Your task to perform on an android device: Go to Google Image 0: 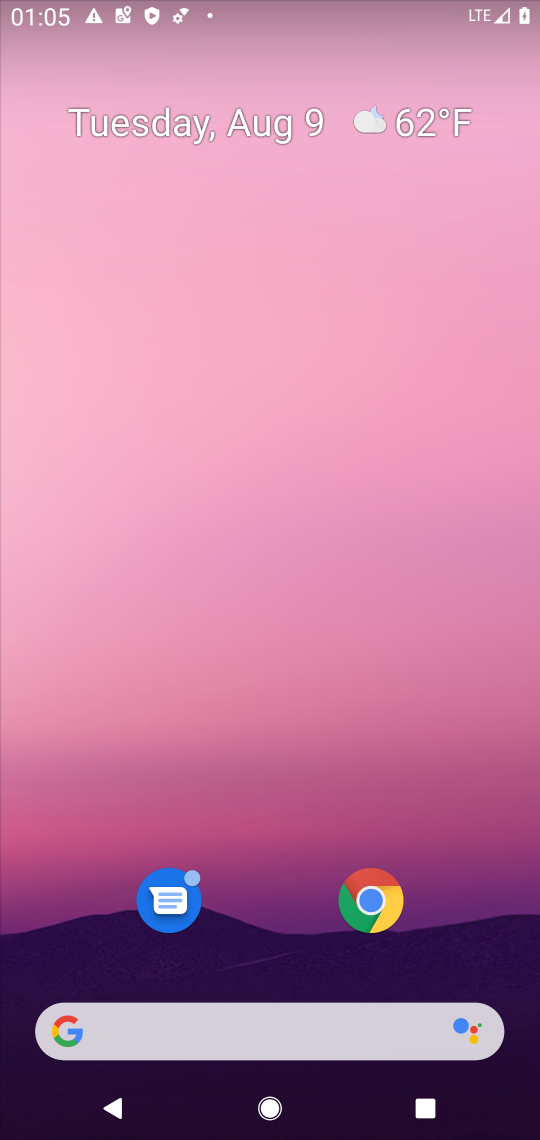
Step 0: press home button
Your task to perform on an android device: Go to Google Image 1: 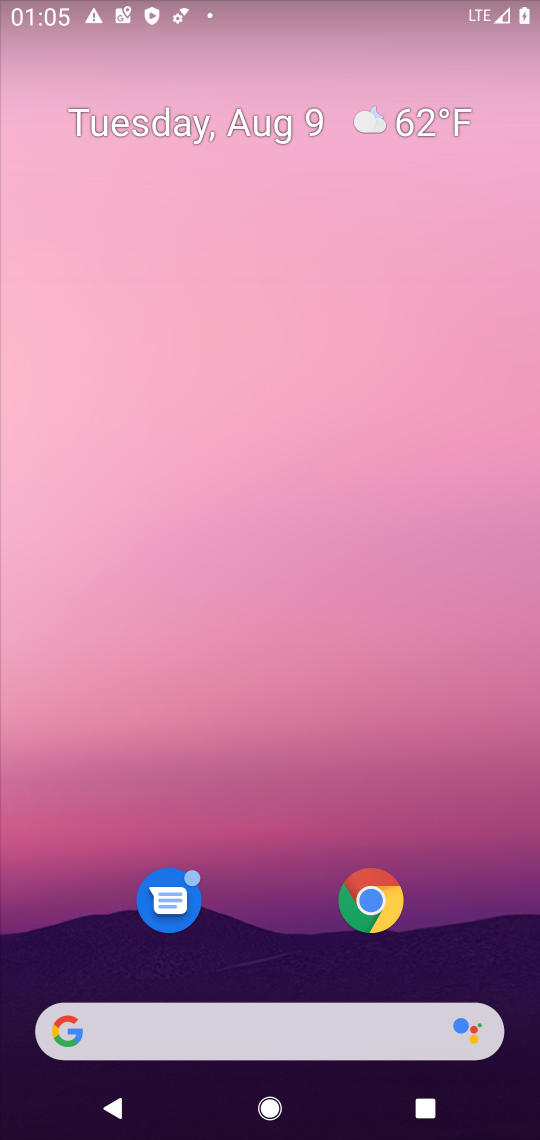
Step 1: drag from (233, 929) to (268, 292)
Your task to perform on an android device: Go to Google Image 2: 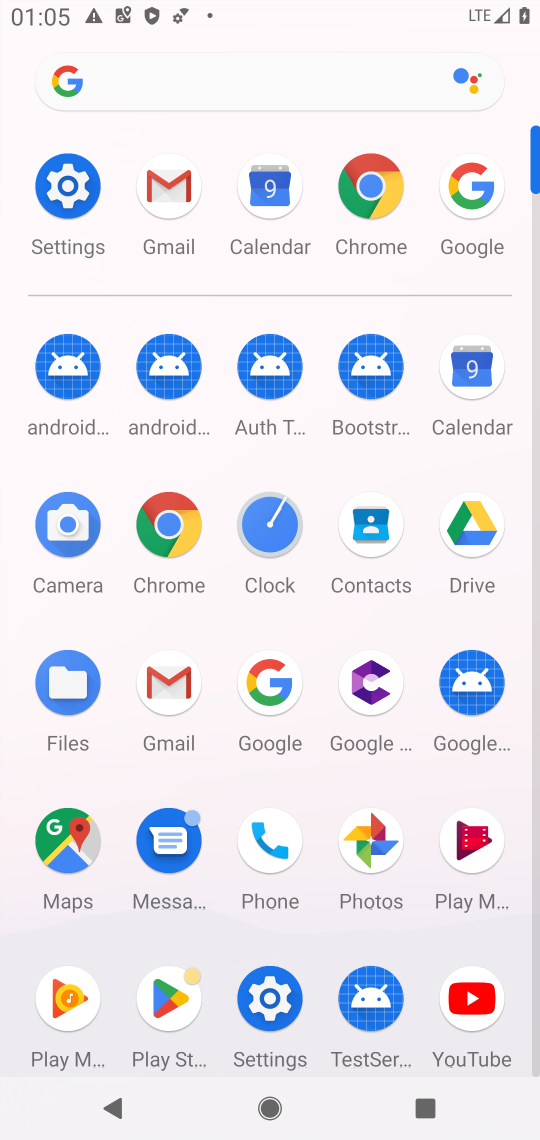
Step 2: click (470, 179)
Your task to perform on an android device: Go to Google Image 3: 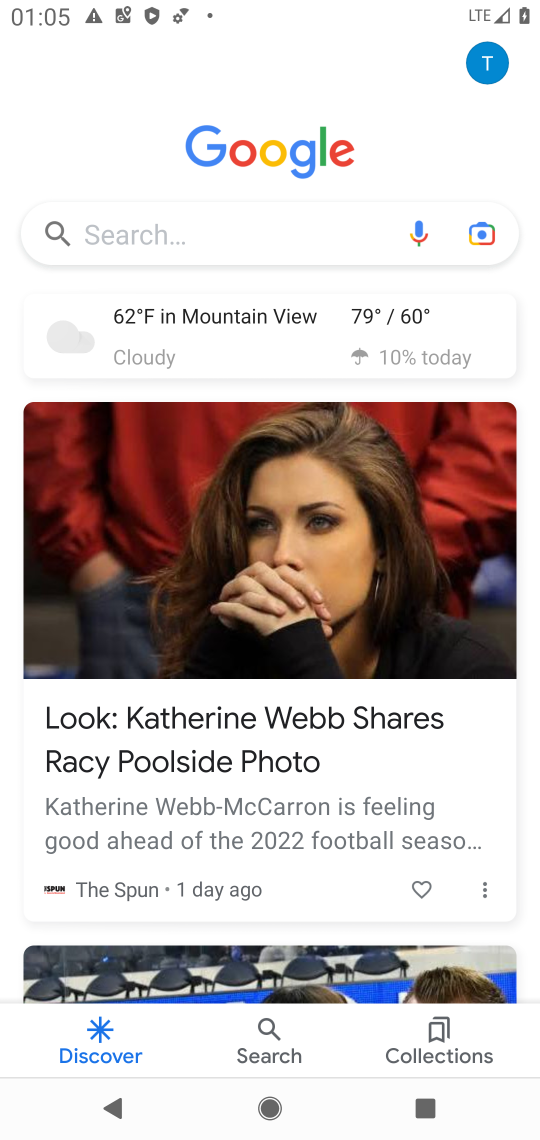
Step 3: task complete